Your task to perform on an android device: Open Chrome and go to the settings page Image 0: 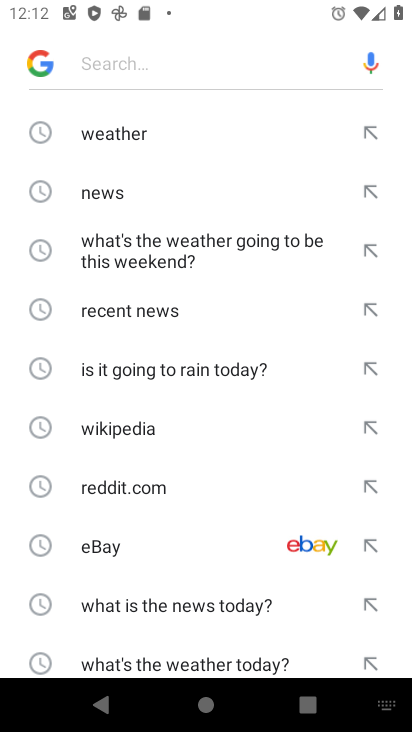
Step 0: press home button
Your task to perform on an android device: Open Chrome and go to the settings page Image 1: 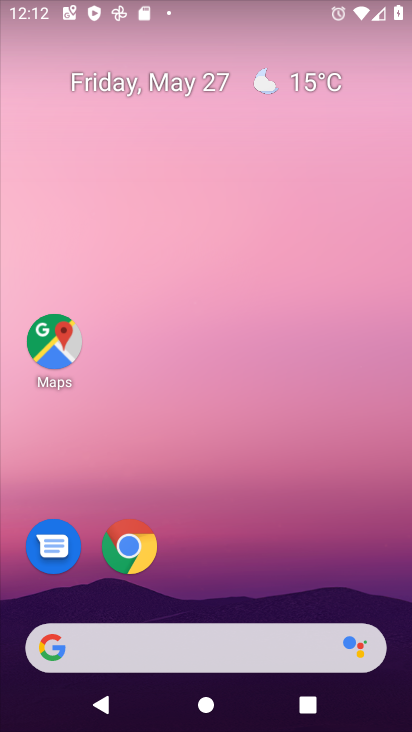
Step 1: click (134, 553)
Your task to perform on an android device: Open Chrome and go to the settings page Image 2: 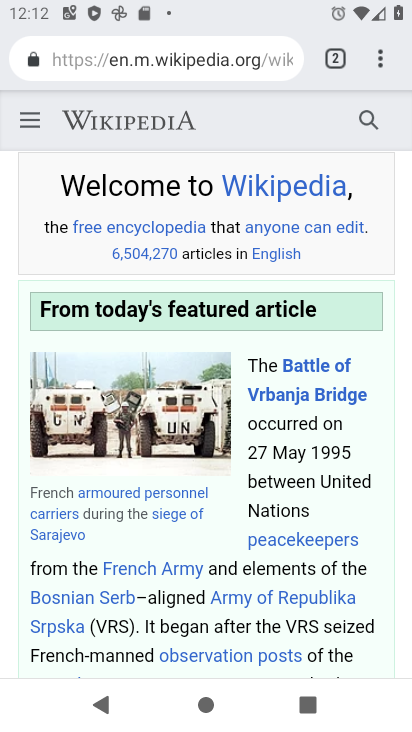
Step 2: click (374, 68)
Your task to perform on an android device: Open Chrome and go to the settings page Image 3: 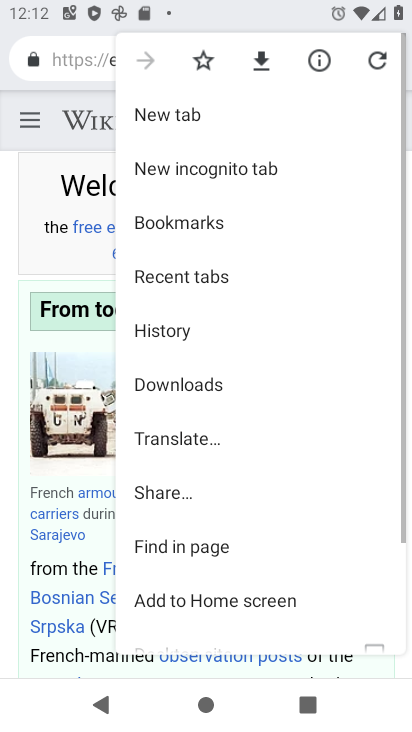
Step 3: drag from (244, 563) to (307, 138)
Your task to perform on an android device: Open Chrome and go to the settings page Image 4: 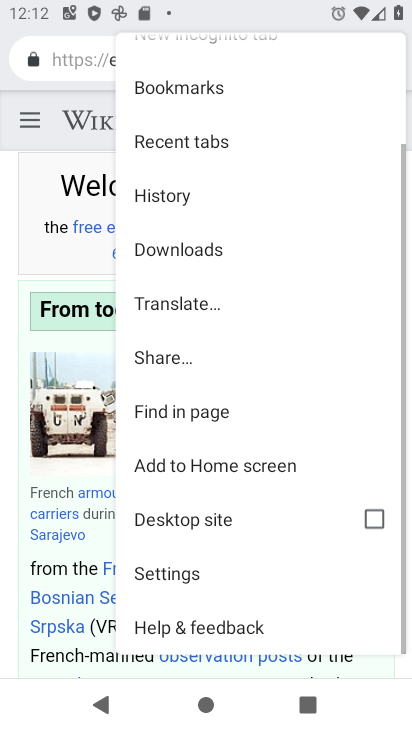
Step 4: click (166, 564)
Your task to perform on an android device: Open Chrome and go to the settings page Image 5: 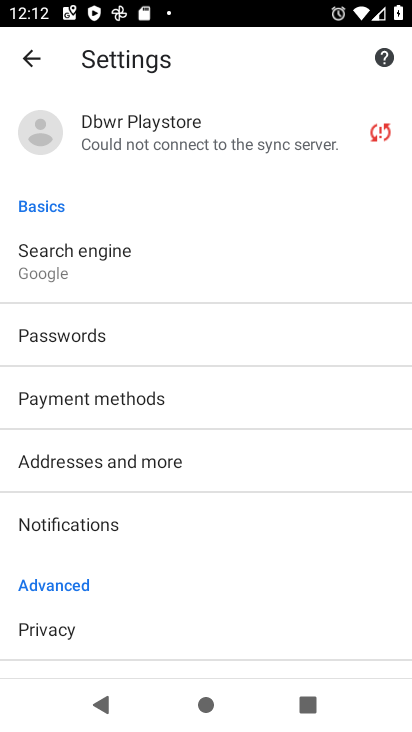
Step 5: task complete